Your task to perform on an android device: Open the phone app and click the voicemail tab. Image 0: 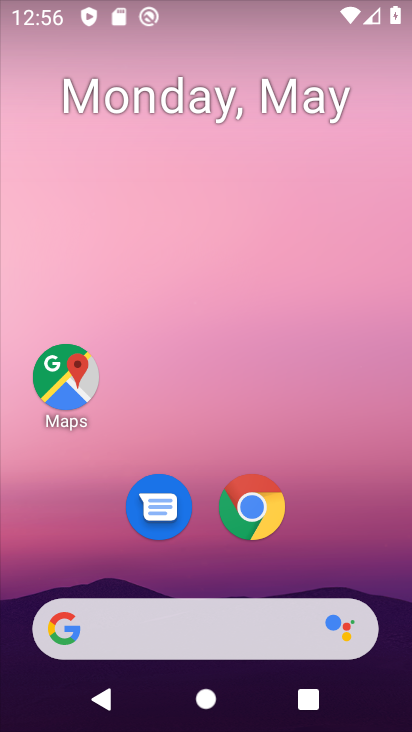
Step 0: drag from (231, 717) to (234, 13)
Your task to perform on an android device: Open the phone app and click the voicemail tab. Image 1: 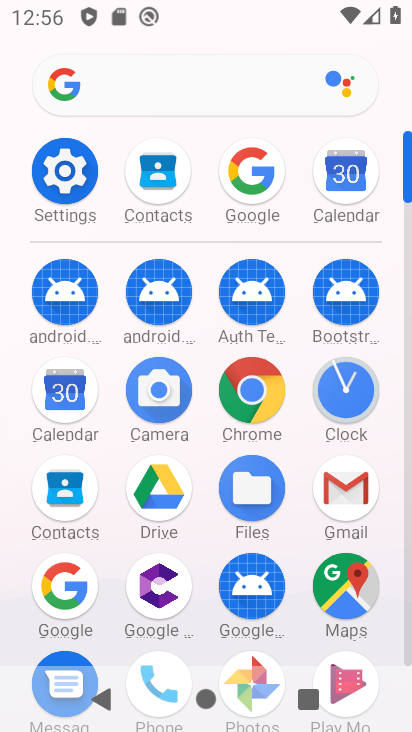
Step 1: drag from (300, 683) to (301, 308)
Your task to perform on an android device: Open the phone app and click the voicemail tab. Image 2: 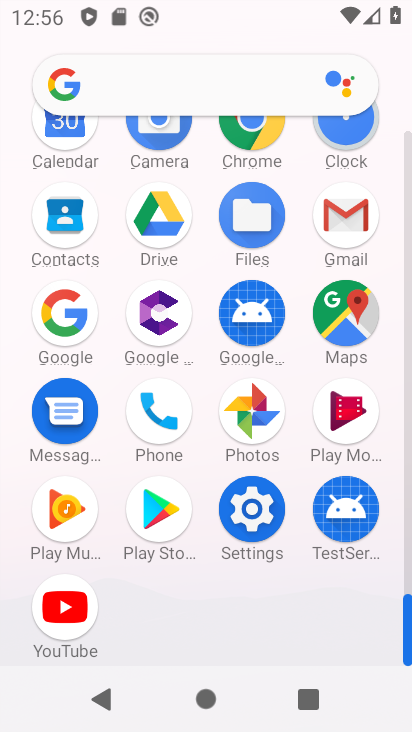
Step 2: click (157, 425)
Your task to perform on an android device: Open the phone app and click the voicemail tab. Image 3: 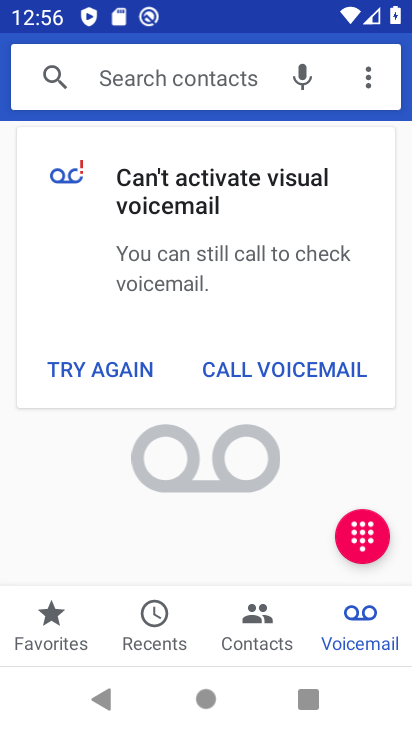
Step 3: task complete